Your task to perform on an android device: open a bookmark in the chrome app Image 0: 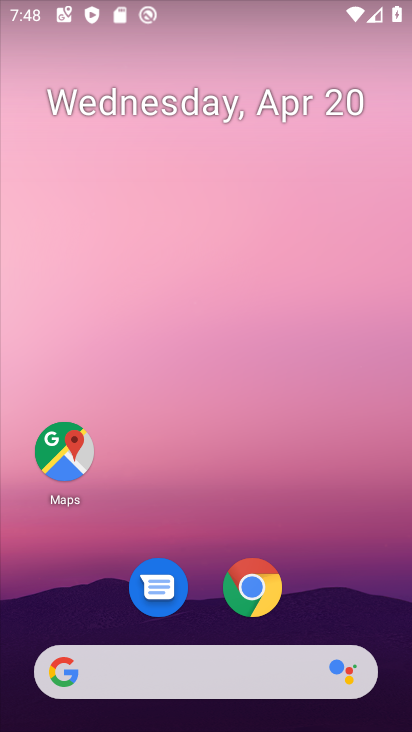
Step 0: drag from (370, 600) to (371, 189)
Your task to perform on an android device: open a bookmark in the chrome app Image 1: 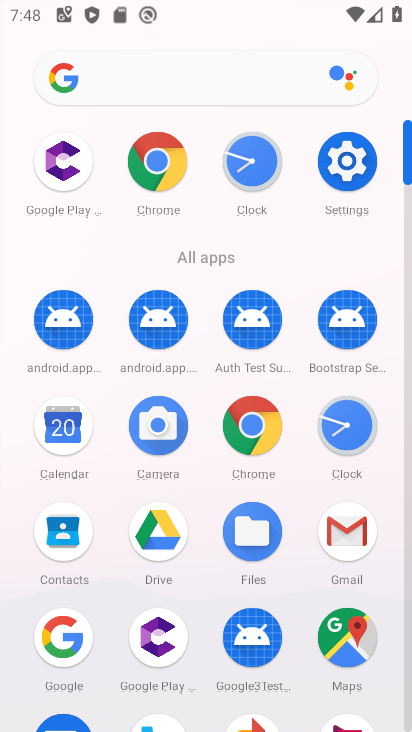
Step 1: click (255, 449)
Your task to perform on an android device: open a bookmark in the chrome app Image 2: 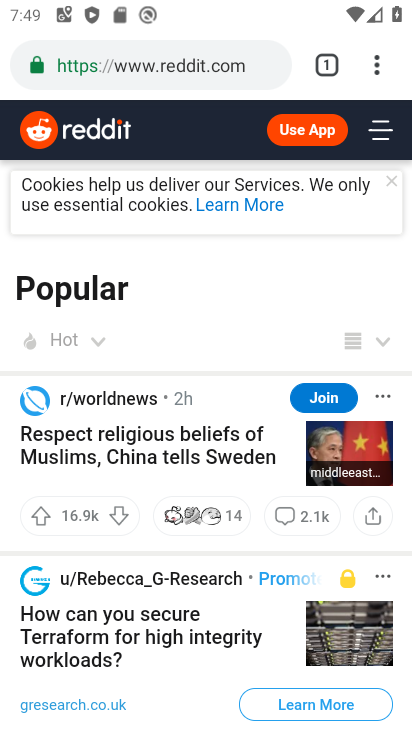
Step 2: click (377, 67)
Your task to perform on an android device: open a bookmark in the chrome app Image 3: 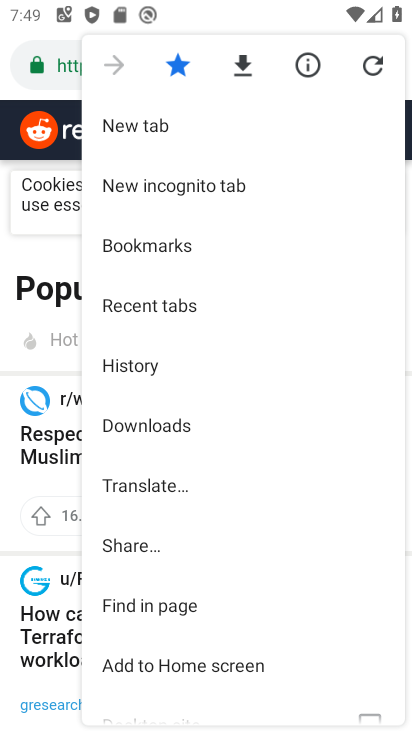
Step 3: click (140, 246)
Your task to perform on an android device: open a bookmark in the chrome app Image 4: 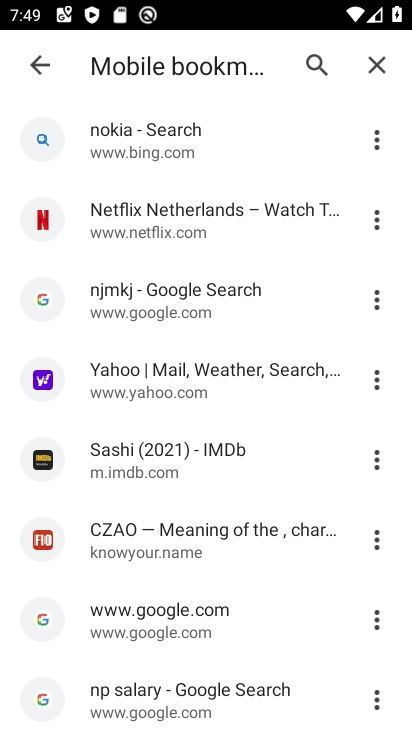
Step 4: click (161, 380)
Your task to perform on an android device: open a bookmark in the chrome app Image 5: 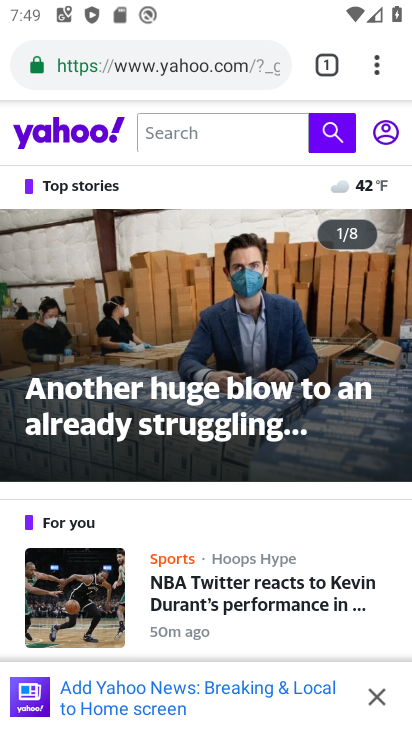
Step 5: task complete